Your task to perform on an android device: When is my next meeting? Image 0: 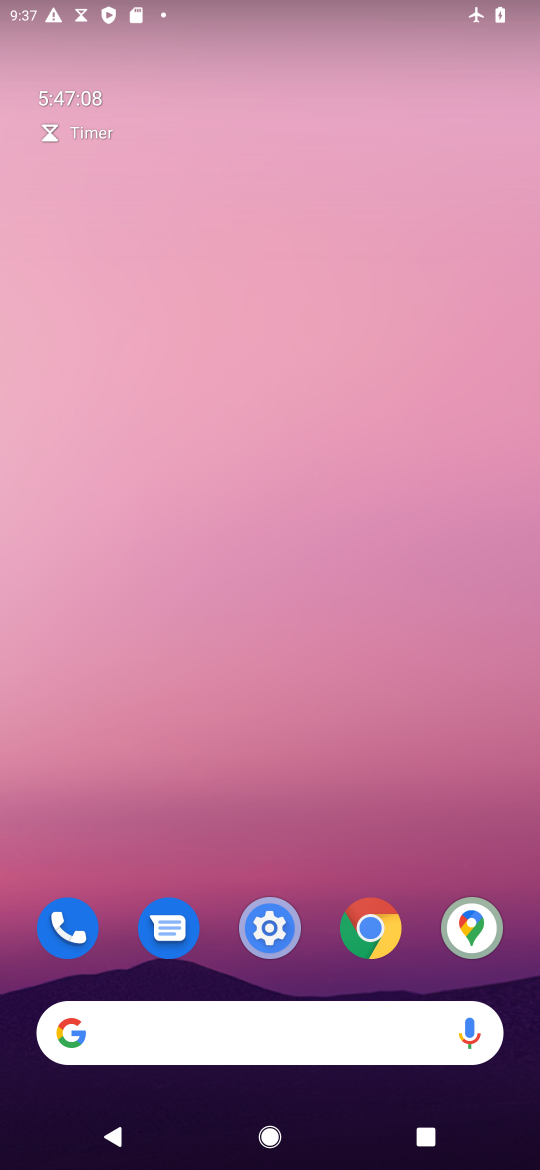
Step 0: press home button
Your task to perform on an android device: When is my next meeting? Image 1: 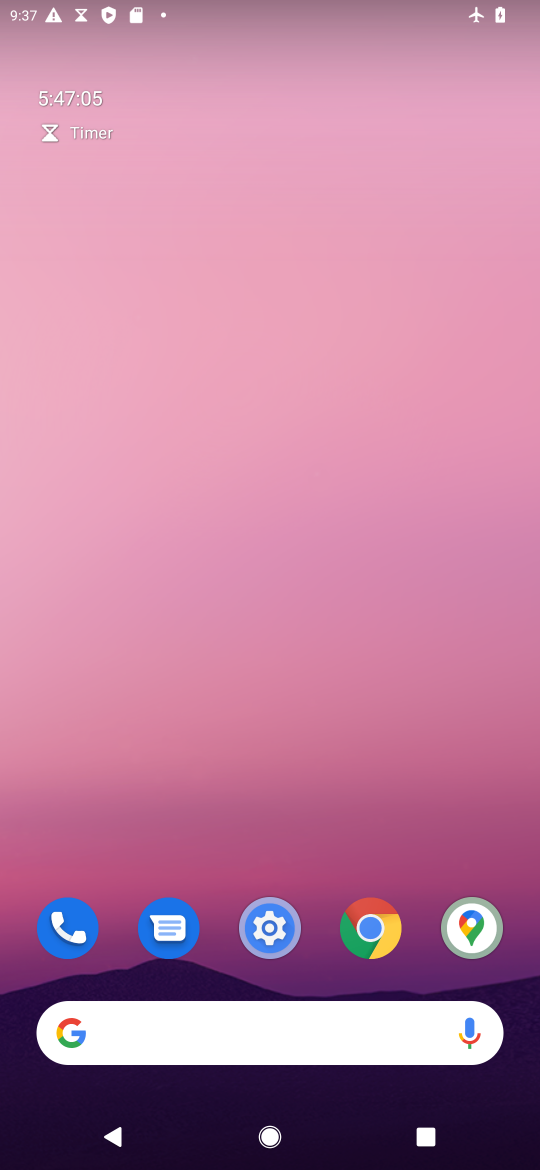
Step 1: drag from (325, 887) to (374, 165)
Your task to perform on an android device: When is my next meeting? Image 2: 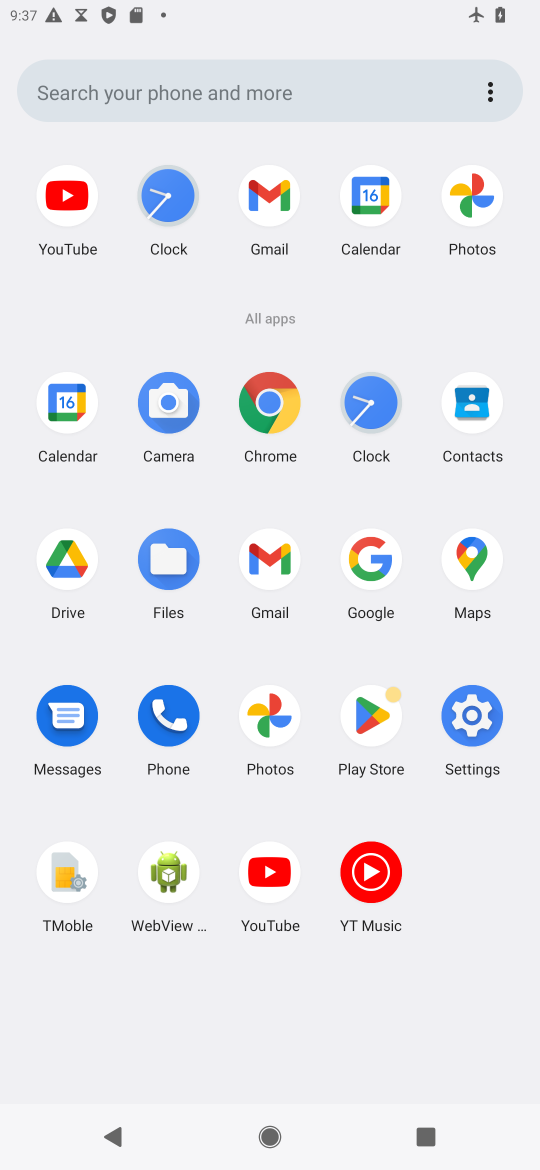
Step 2: click (55, 394)
Your task to perform on an android device: When is my next meeting? Image 3: 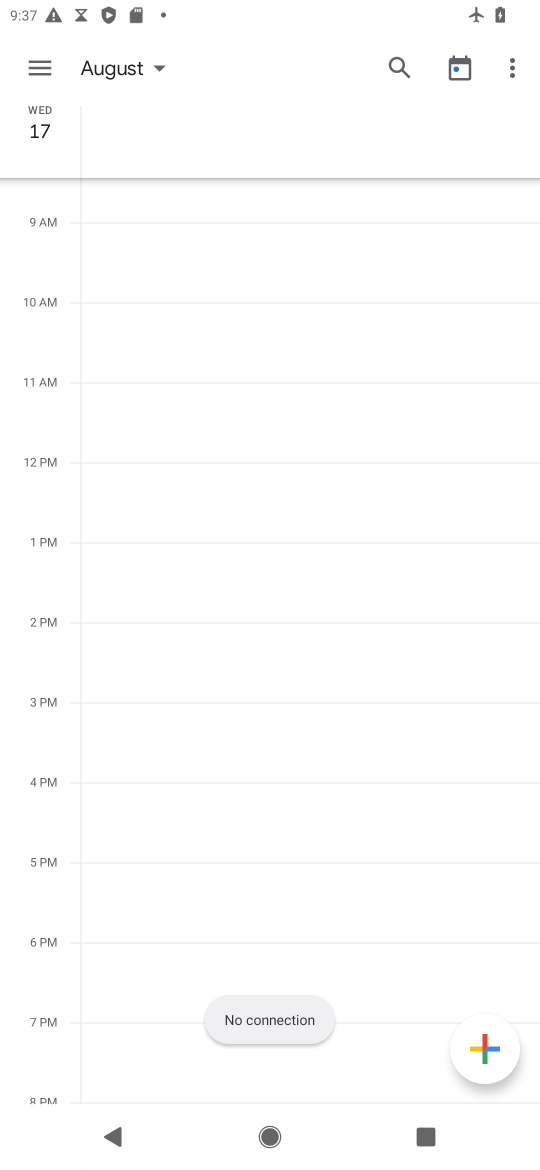
Step 3: click (44, 62)
Your task to perform on an android device: When is my next meeting? Image 4: 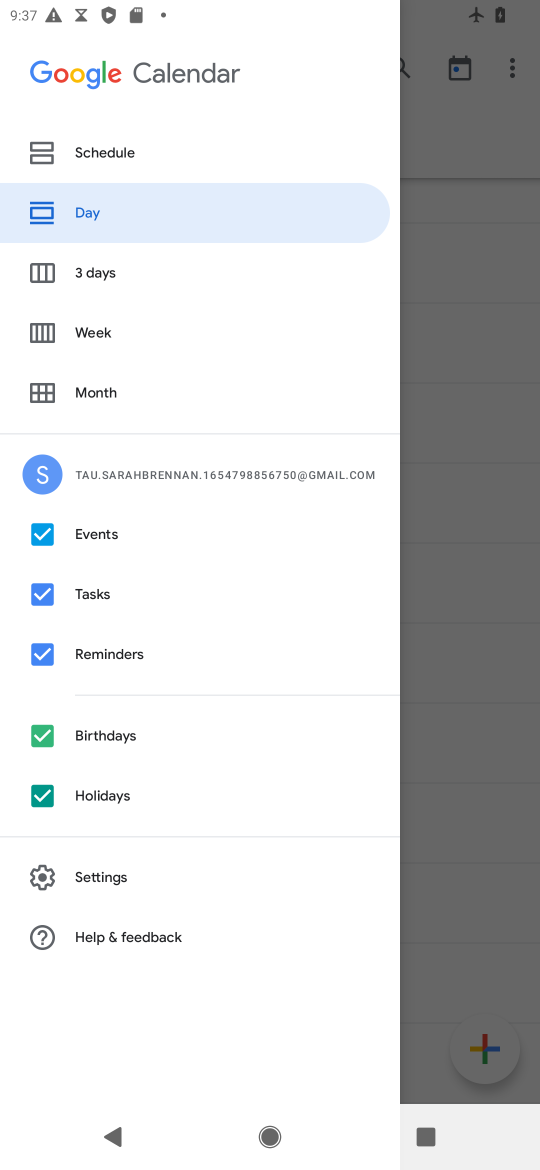
Step 4: click (119, 154)
Your task to perform on an android device: When is my next meeting? Image 5: 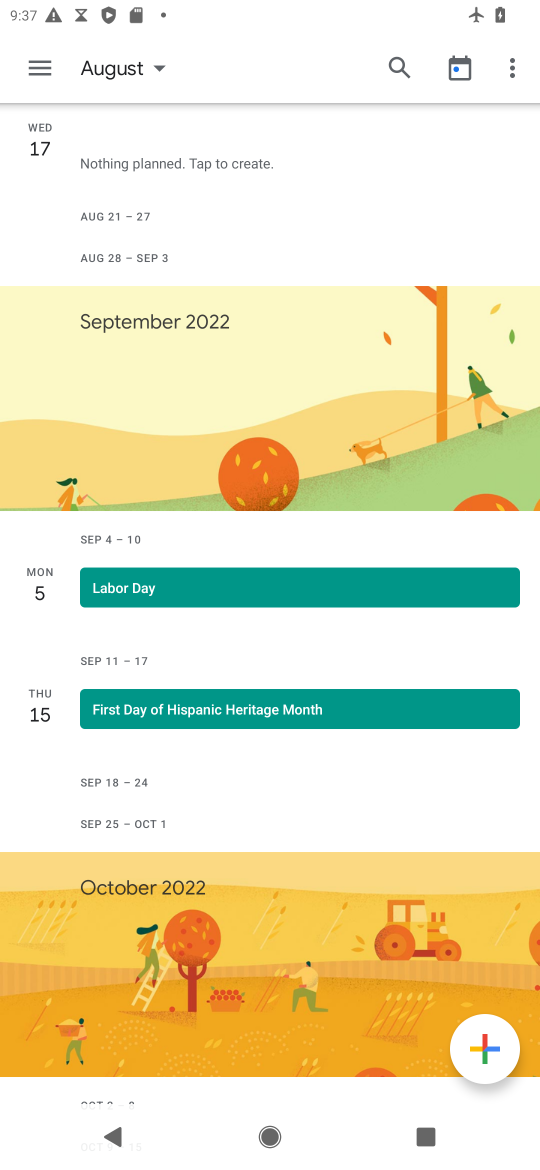
Step 5: task complete